Your task to perform on an android device: Go to display settings Image 0: 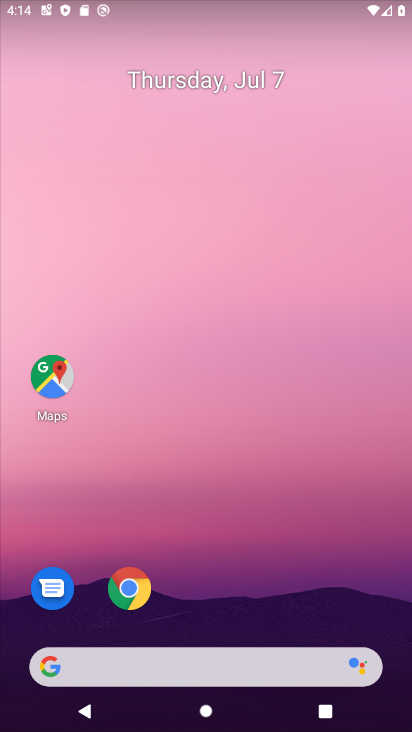
Step 0: drag from (296, 617) to (267, 65)
Your task to perform on an android device: Go to display settings Image 1: 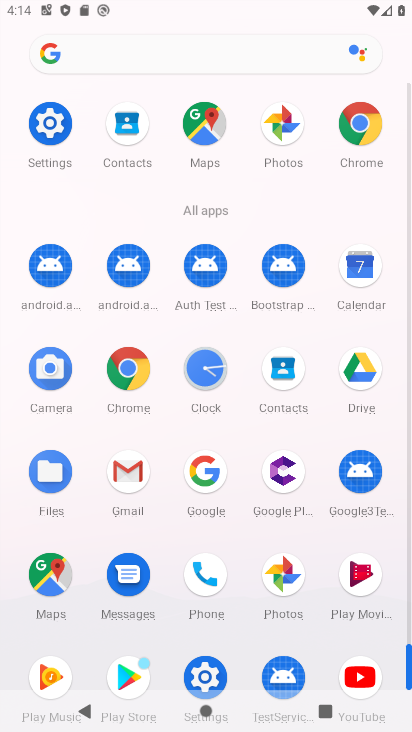
Step 1: click (54, 113)
Your task to perform on an android device: Go to display settings Image 2: 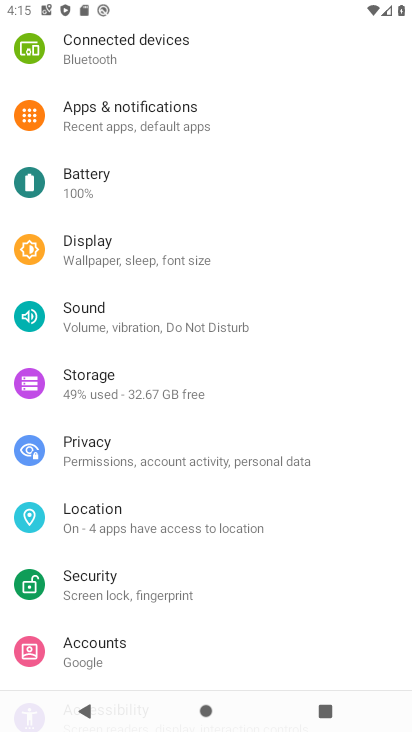
Step 2: click (155, 245)
Your task to perform on an android device: Go to display settings Image 3: 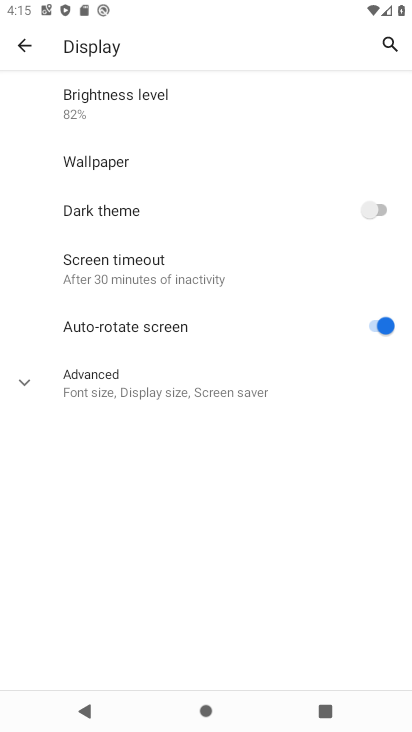
Step 3: task complete